Your task to perform on an android device: Play the last video I watched on Youtube Image 0: 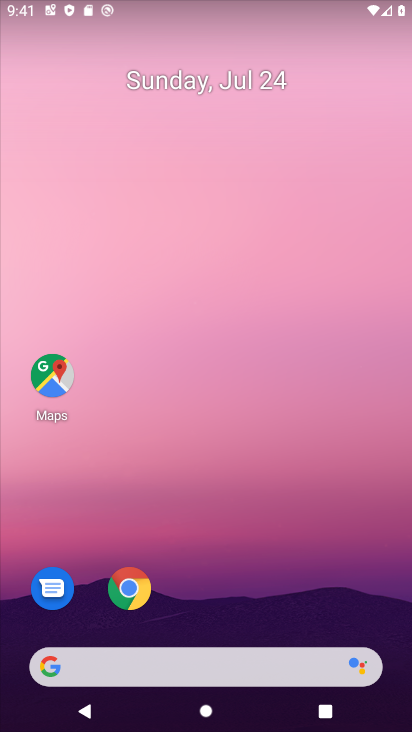
Step 0: drag from (264, 600) to (241, 12)
Your task to perform on an android device: Play the last video I watched on Youtube Image 1: 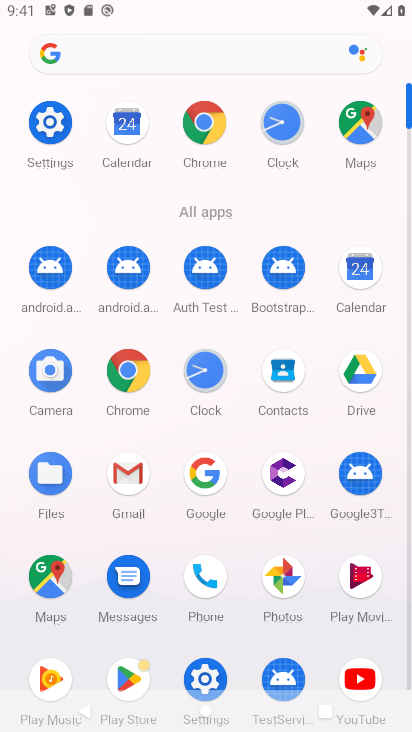
Step 1: click (366, 672)
Your task to perform on an android device: Play the last video I watched on Youtube Image 2: 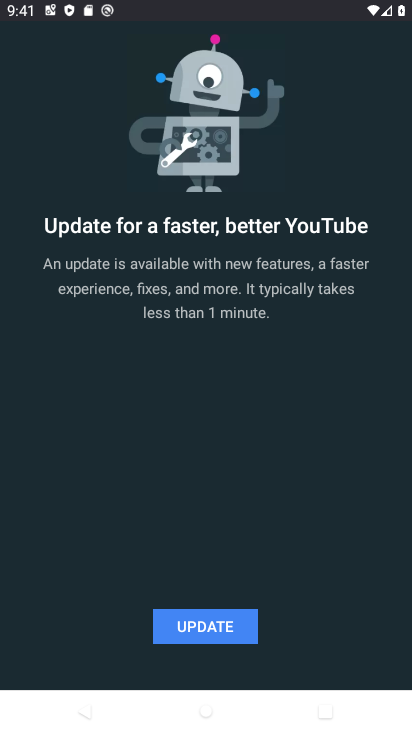
Step 2: click (196, 630)
Your task to perform on an android device: Play the last video I watched on Youtube Image 3: 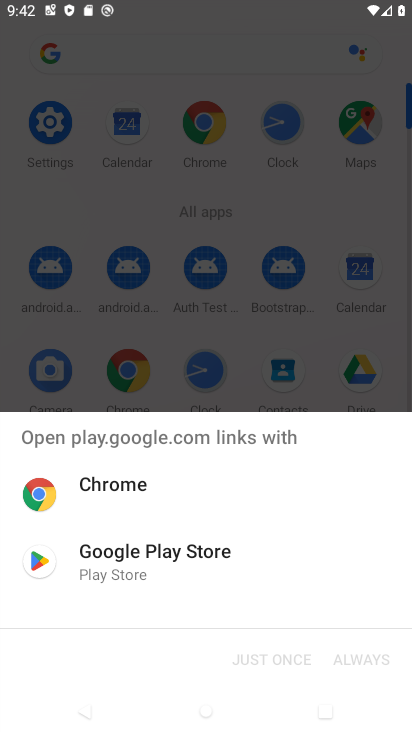
Step 3: click (114, 571)
Your task to perform on an android device: Play the last video I watched on Youtube Image 4: 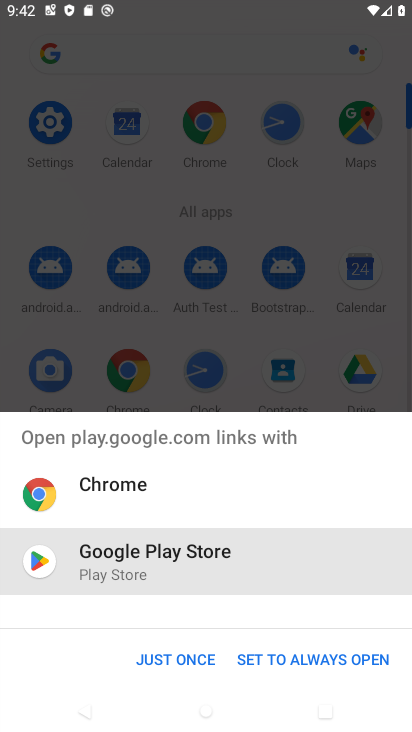
Step 4: click (168, 651)
Your task to perform on an android device: Play the last video I watched on Youtube Image 5: 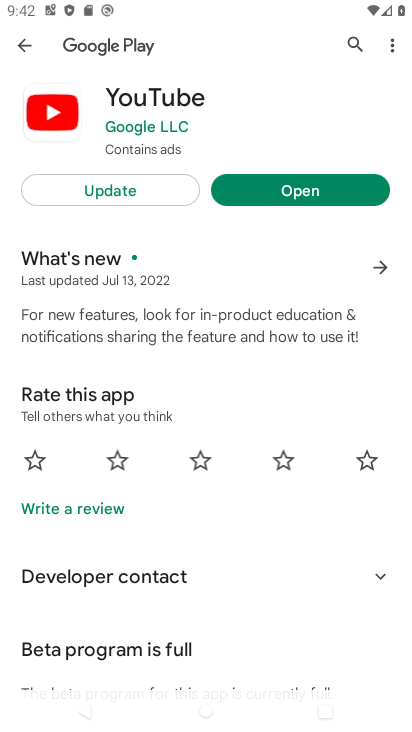
Step 5: click (149, 195)
Your task to perform on an android device: Play the last video I watched on Youtube Image 6: 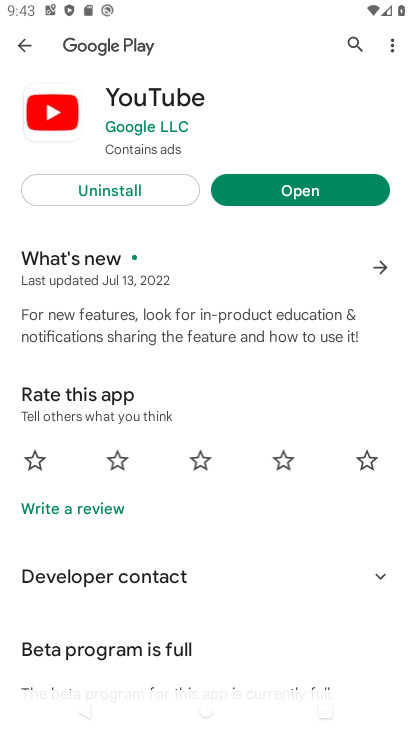
Step 6: click (246, 191)
Your task to perform on an android device: Play the last video I watched on Youtube Image 7: 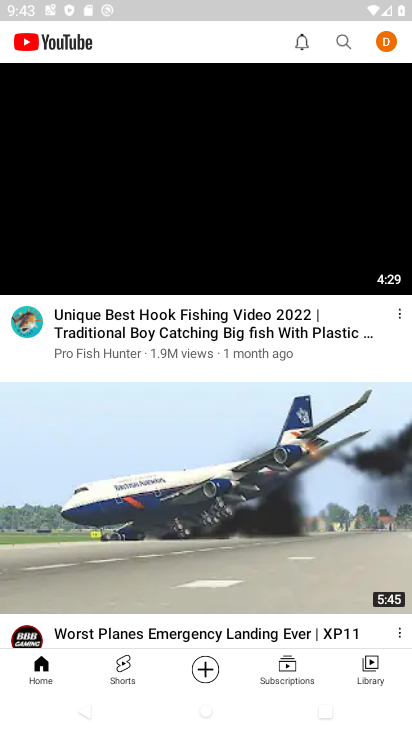
Step 7: click (366, 680)
Your task to perform on an android device: Play the last video I watched on Youtube Image 8: 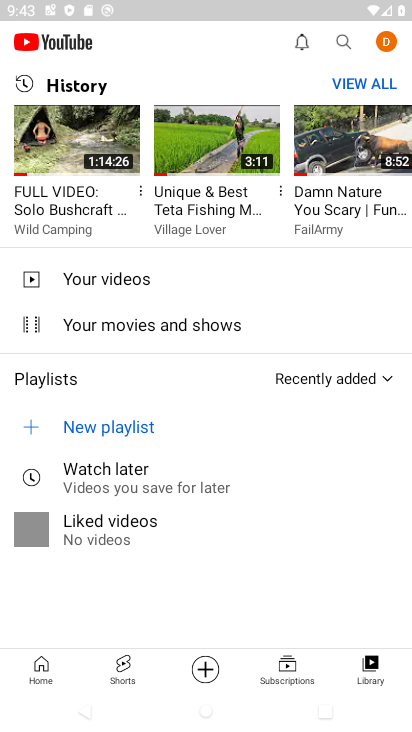
Step 8: click (57, 171)
Your task to perform on an android device: Play the last video I watched on Youtube Image 9: 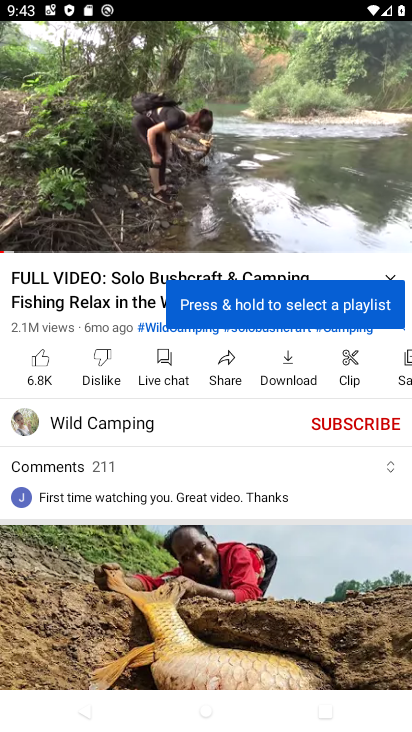
Step 9: click (183, 175)
Your task to perform on an android device: Play the last video I watched on Youtube Image 10: 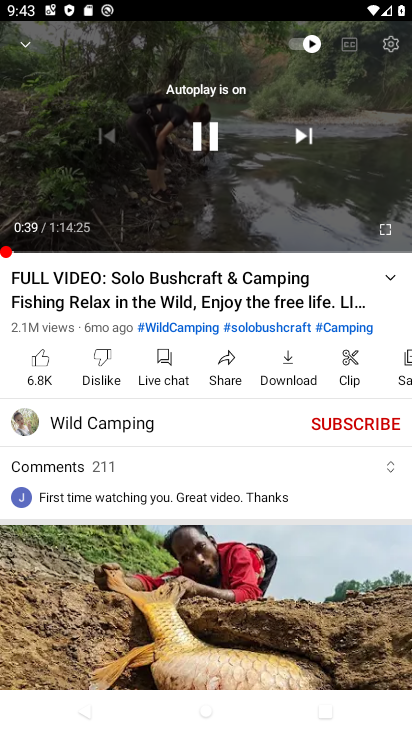
Step 10: click (207, 138)
Your task to perform on an android device: Play the last video I watched on Youtube Image 11: 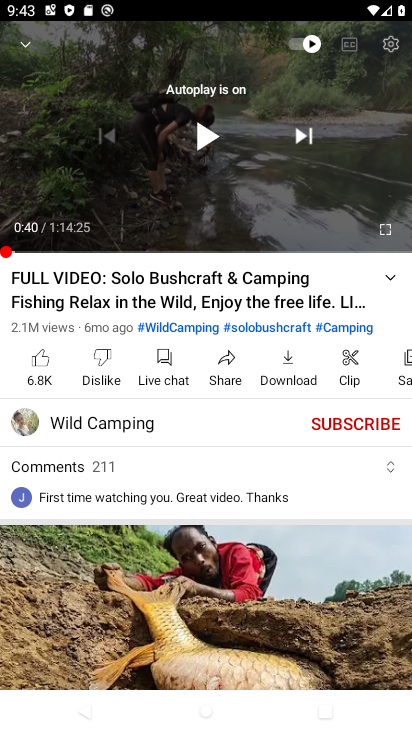
Step 11: task complete